Your task to perform on an android device: Show me productivity apps on the Play Store Image 0: 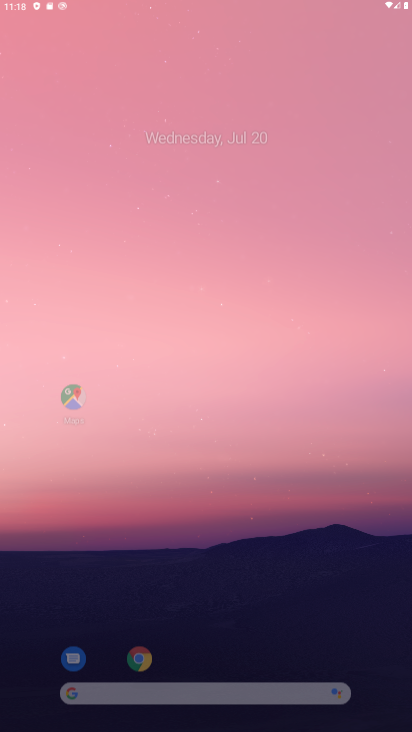
Step 0: press home button
Your task to perform on an android device: Show me productivity apps on the Play Store Image 1: 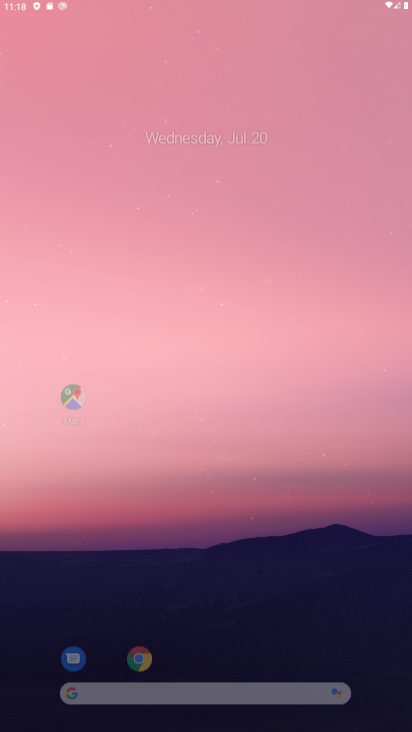
Step 1: click (265, 300)
Your task to perform on an android device: Show me productivity apps on the Play Store Image 2: 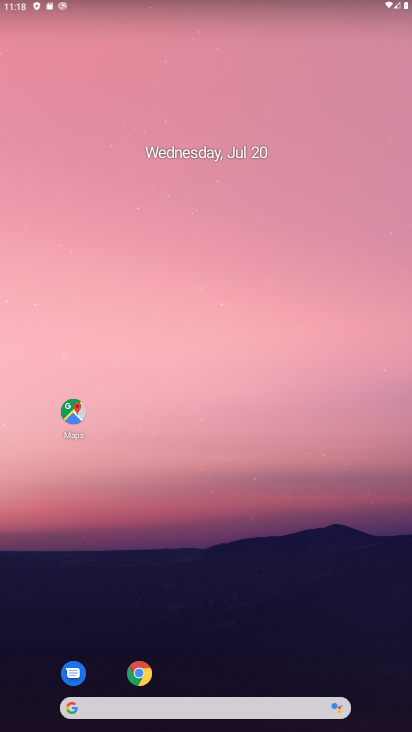
Step 2: drag from (341, 658) to (255, 50)
Your task to perform on an android device: Show me productivity apps on the Play Store Image 3: 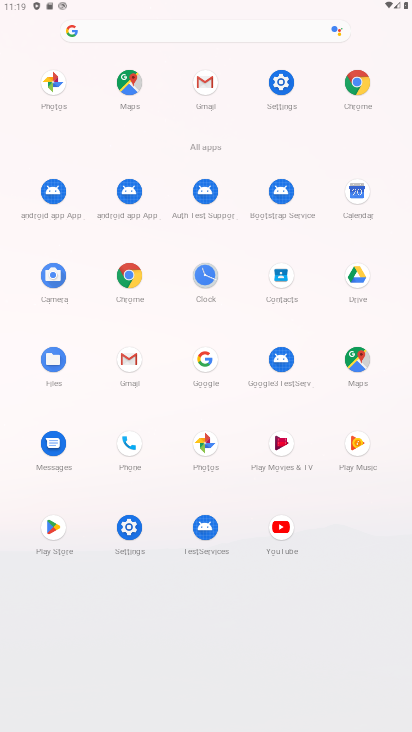
Step 3: click (136, 528)
Your task to perform on an android device: Show me productivity apps on the Play Store Image 4: 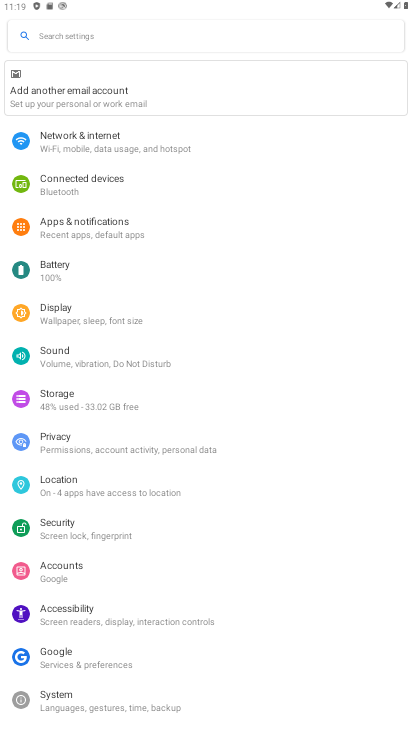
Step 4: press home button
Your task to perform on an android device: Show me productivity apps on the Play Store Image 5: 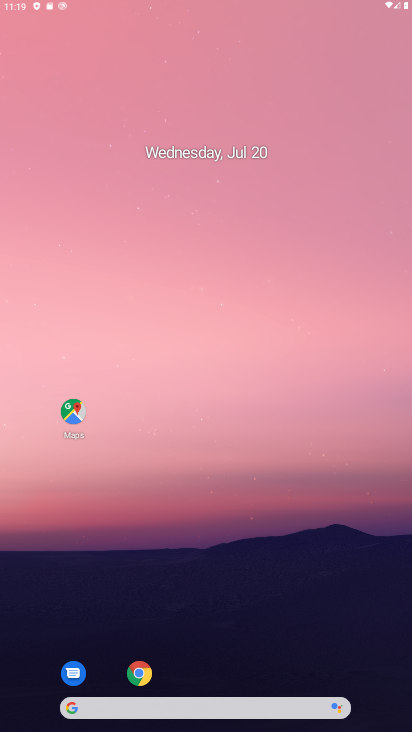
Step 5: drag from (233, 609) to (190, 107)
Your task to perform on an android device: Show me productivity apps on the Play Store Image 6: 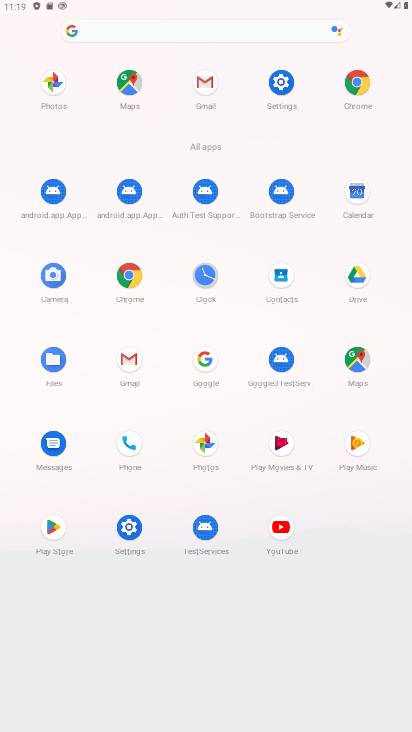
Step 6: click (212, 665)
Your task to perform on an android device: Show me productivity apps on the Play Store Image 7: 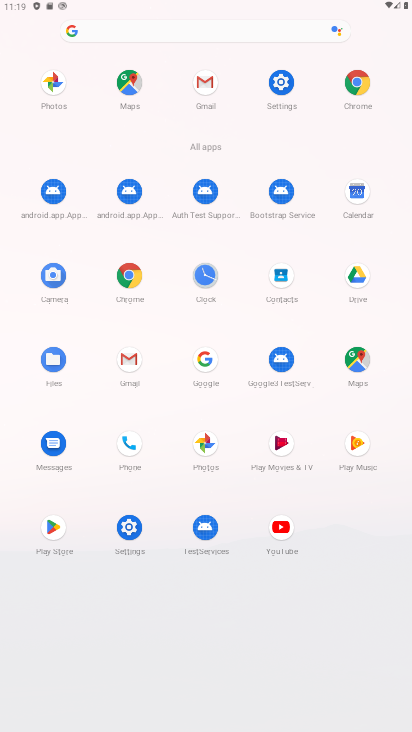
Step 7: drag from (212, 665) to (210, 729)
Your task to perform on an android device: Show me productivity apps on the Play Store Image 8: 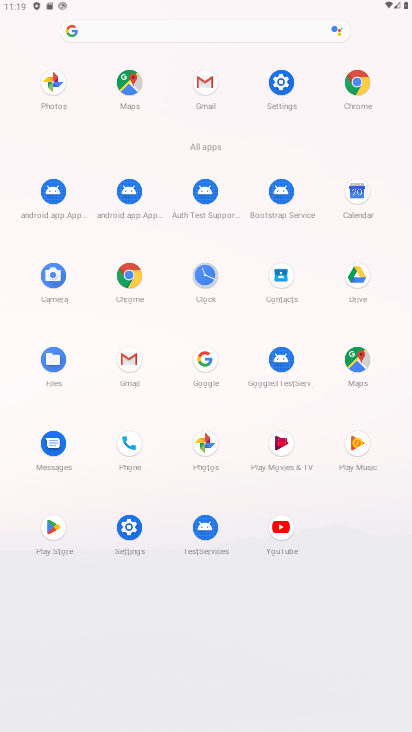
Step 8: click (44, 547)
Your task to perform on an android device: Show me productivity apps on the Play Store Image 9: 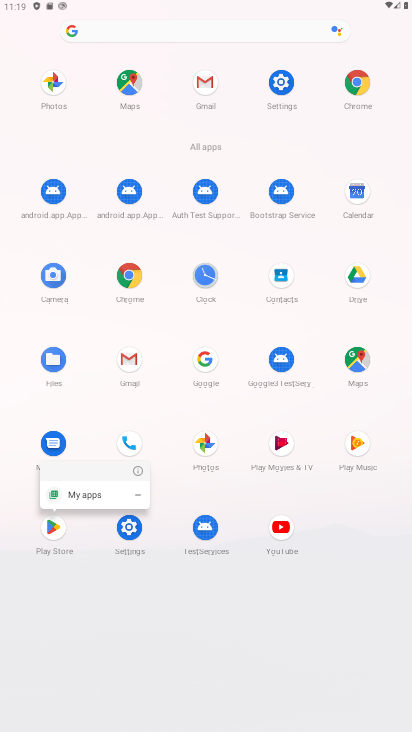
Step 9: click (44, 547)
Your task to perform on an android device: Show me productivity apps on the Play Store Image 10: 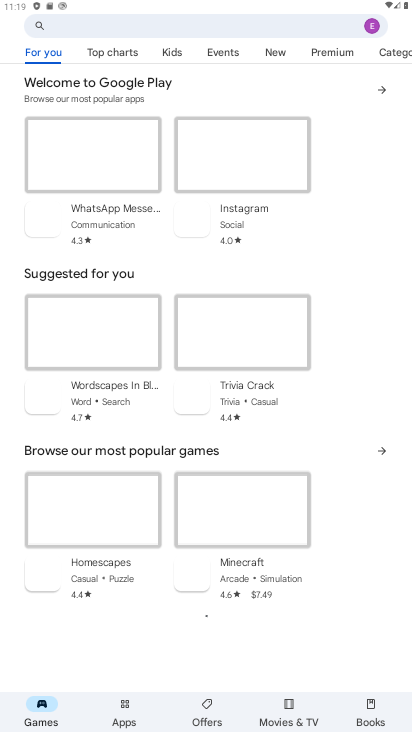
Step 10: click (203, 28)
Your task to perform on an android device: Show me productivity apps on the Play Store Image 11: 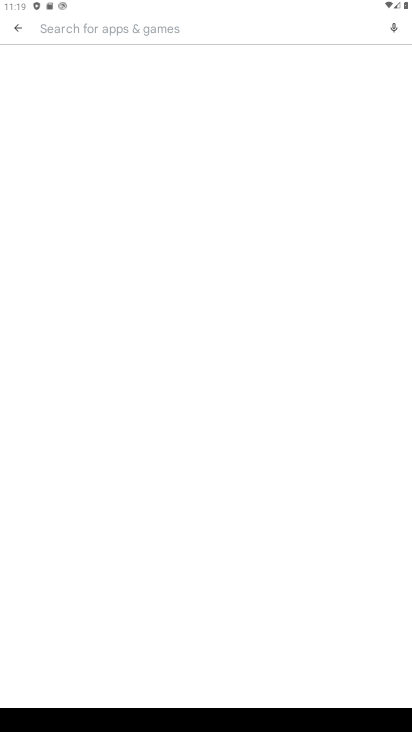
Step 11: type " productivity apps"
Your task to perform on an android device: Show me productivity apps on the Play Store Image 12: 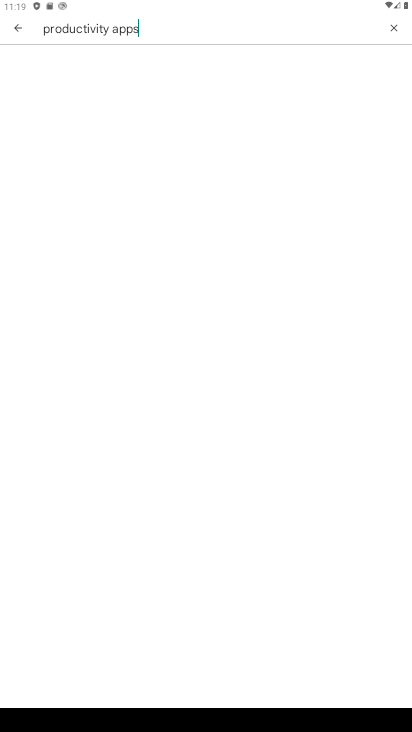
Step 12: type ""
Your task to perform on an android device: Show me productivity apps on the Play Store Image 13: 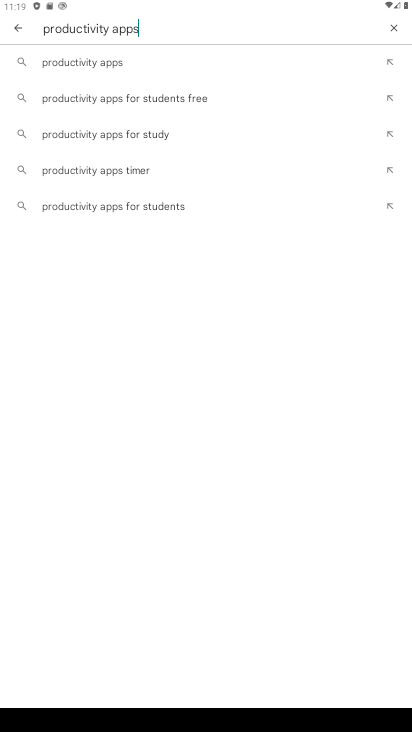
Step 13: click (89, 50)
Your task to perform on an android device: Show me productivity apps on the Play Store Image 14: 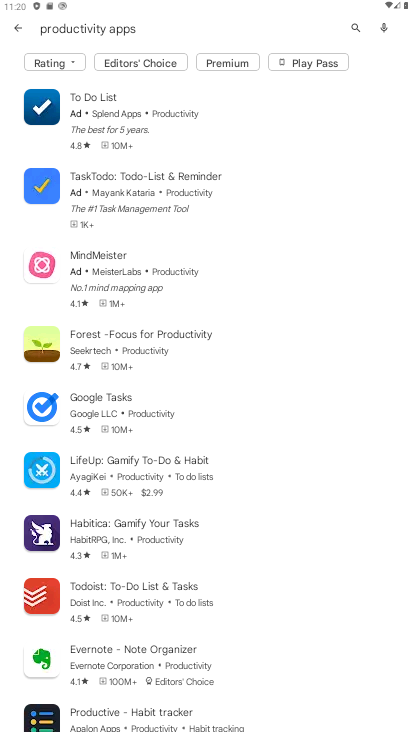
Step 14: task complete